Your task to perform on an android device: Open notification settings Image 0: 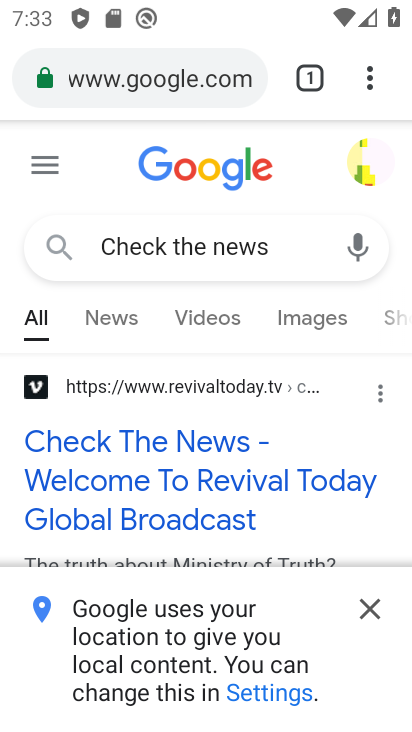
Step 0: press home button
Your task to perform on an android device: Open notification settings Image 1: 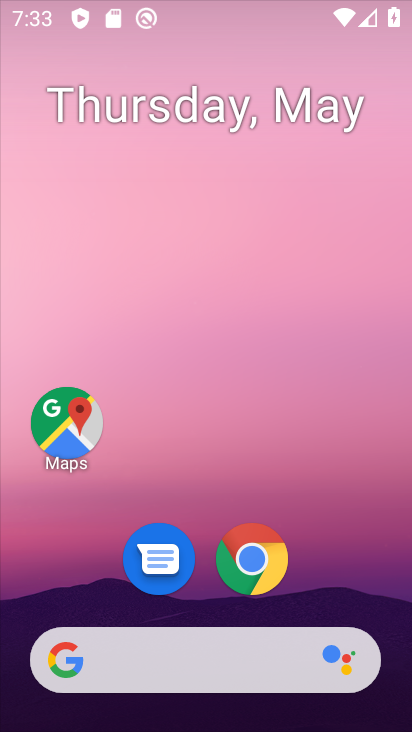
Step 1: drag from (303, 624) to (347, 188)
Your task to perform on an android device: Open notification settings Image 2: 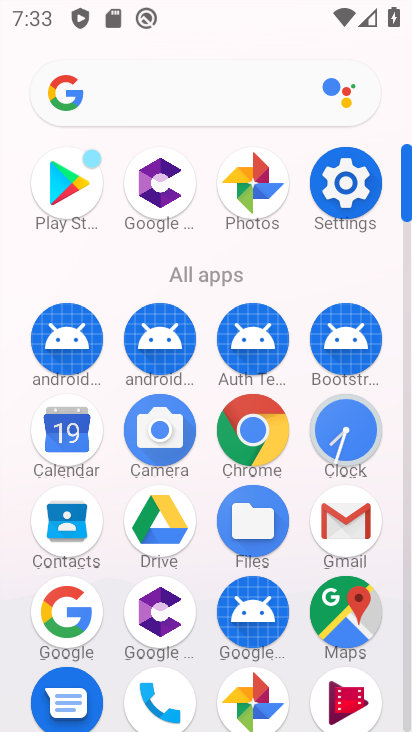
Step 2: click (350, 163)
Your task to perform on an android device: Open notification settings Image 3: 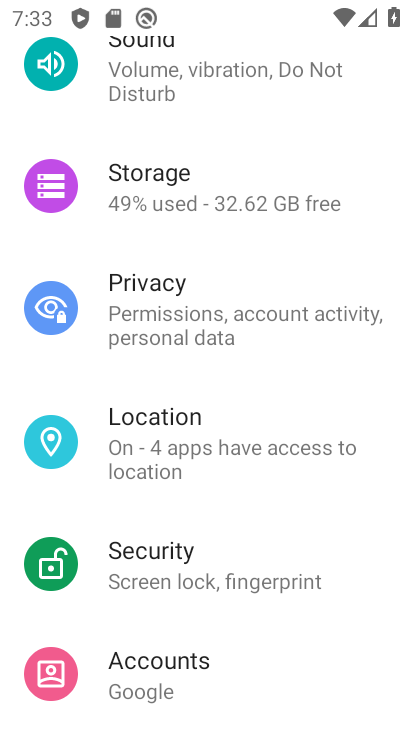
Step 3: drag from (221, 137) to (171, 565)
Your task to perform on an android device: Open notification settings Image 4: 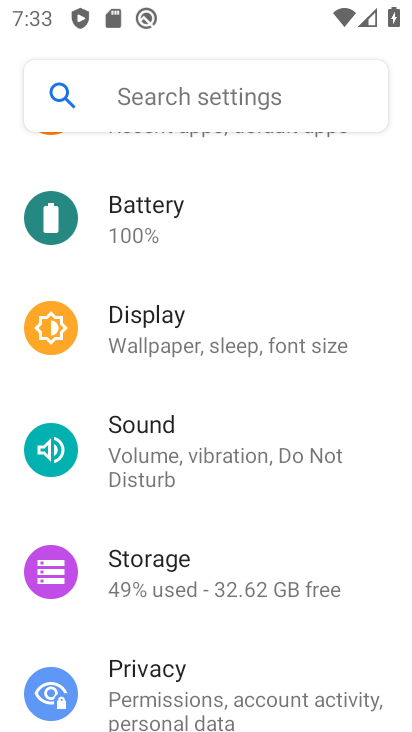
Step 4: drag from (145, 219) to (170, 485)
Your task to perform on an android device: Open notification settings Image 5: 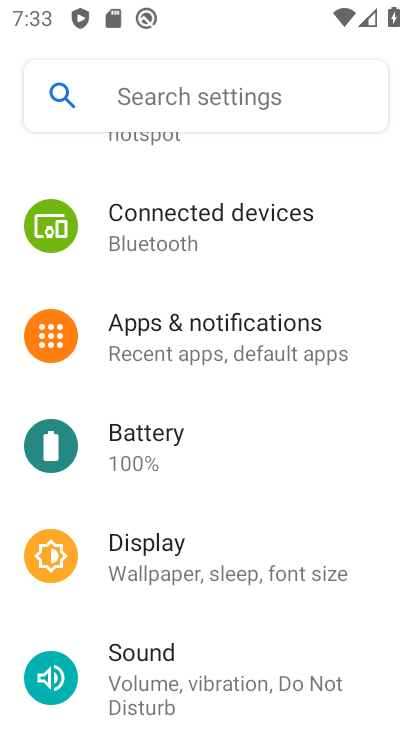
Step 5: click (152, 340)
Your task to perform on an android device: Open notification settings Image 6: 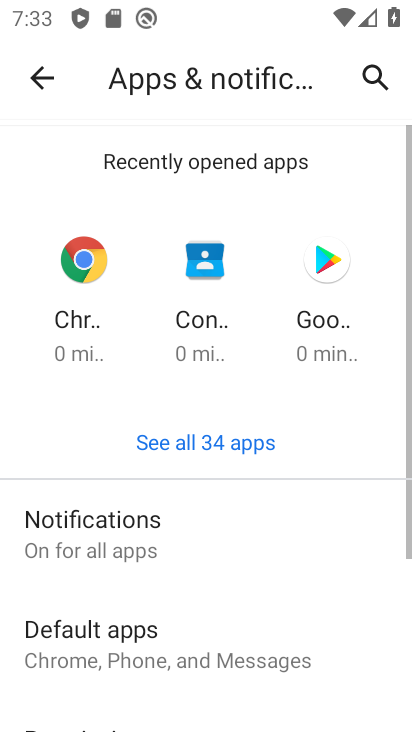
Step 6: click (132, 519)
Your task to perform on an android device: Open notification settings Image 7: 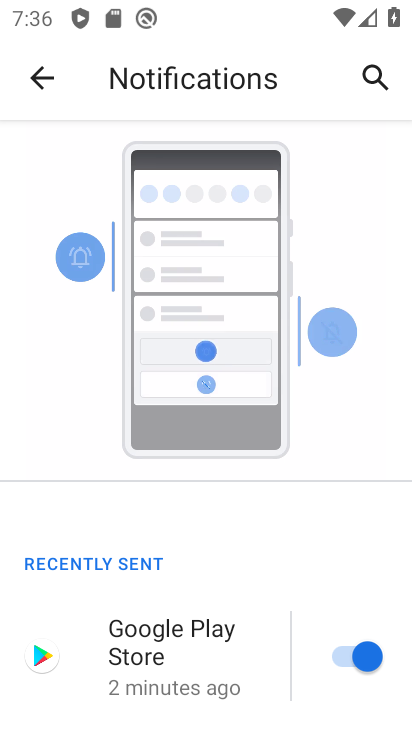
Step 7: task complete